Your task to perform on an android device: turn on the 12-hour format for clock Image 0: 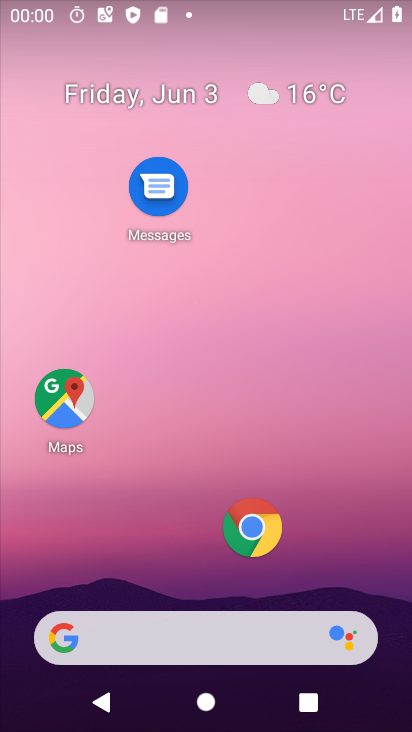
Step 0: press home button
Your task to perform on an android device: turn on the 12-hour format for clock Image 1: 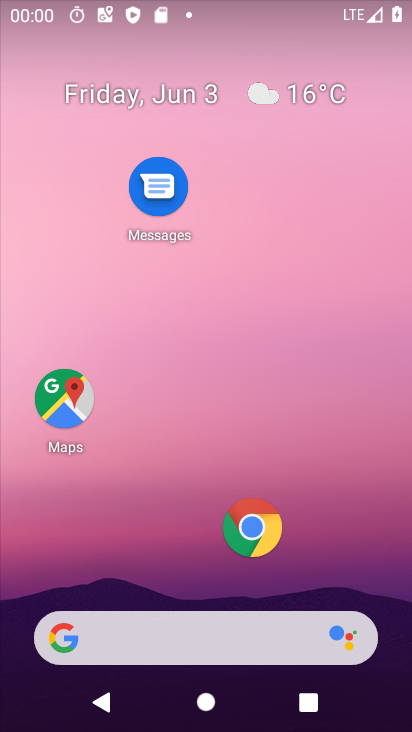
Step 1: drag from (210, 577) to (232, 75)
Your task to perform on an android device: turn on the 12-hour format for clock Image 2: 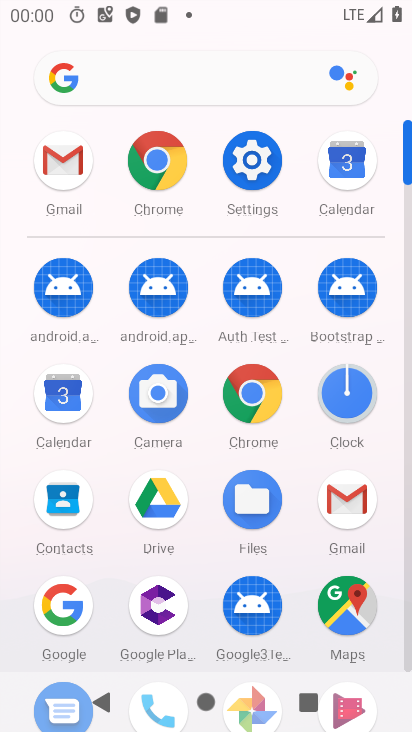
Step 2: click (342, 384)
Your task to perform on an android device: turn on the 12-hour format for clock Image 3: 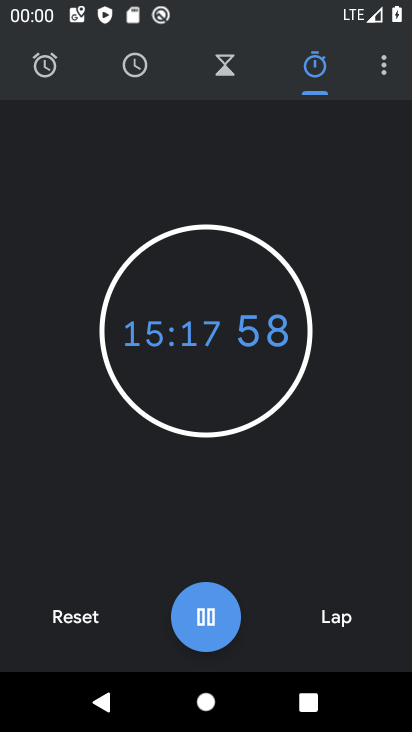
Step 3: click (384, 67)
Your task to perform on an android device: turn on the 12-hour format for clock Image 4: 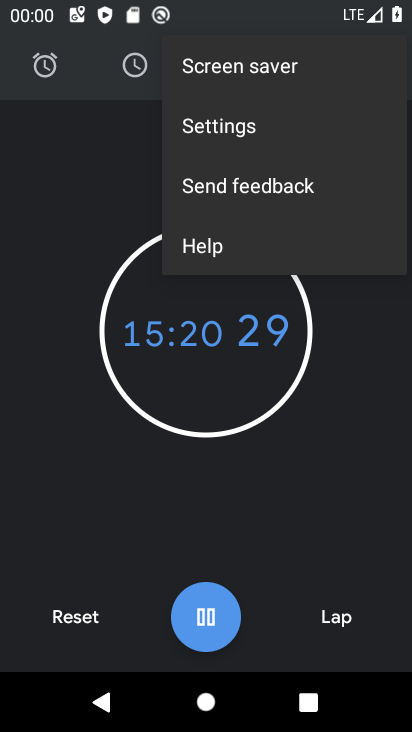
Step 4: click (276, 123)
Your task to perform on an android device: turn on the 12-hour format for clock Image 5: 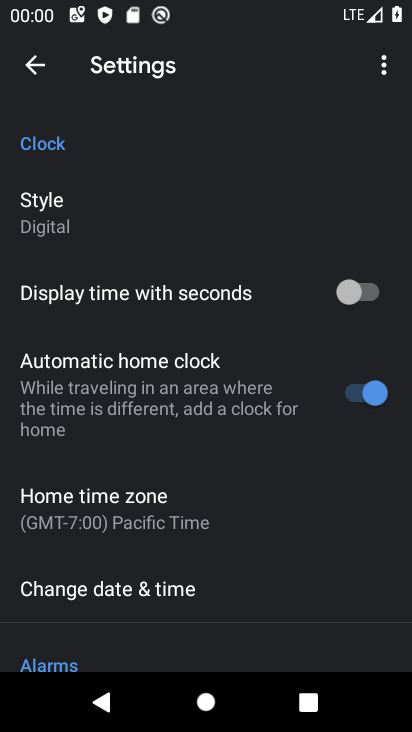
Step 5: click (224, 592)
Your task to perform on an android device: turn on the 12-hour format for clock Image 6: 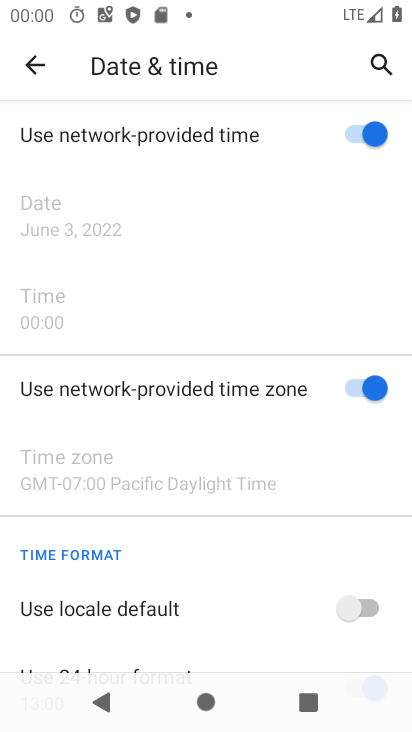
Step 6: drag from (269, 583) to (285, 398)
Your task to perform on an android device: turn on the 12-hour format for clock Image 7: 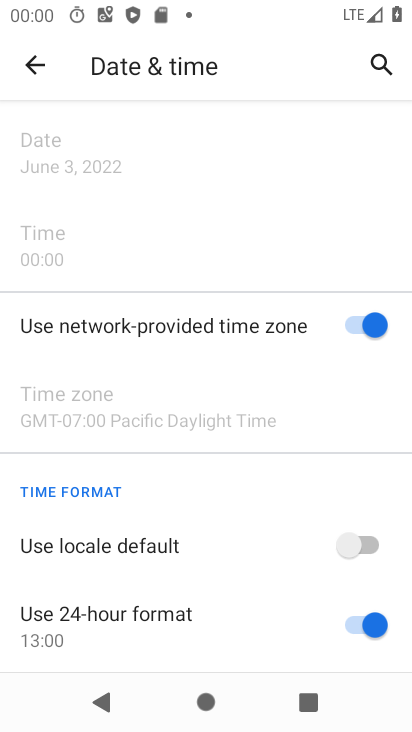
Step 7: click (362, 542)
Your task to perform on an android device: turn on the 12-hour format for clock Image 8: 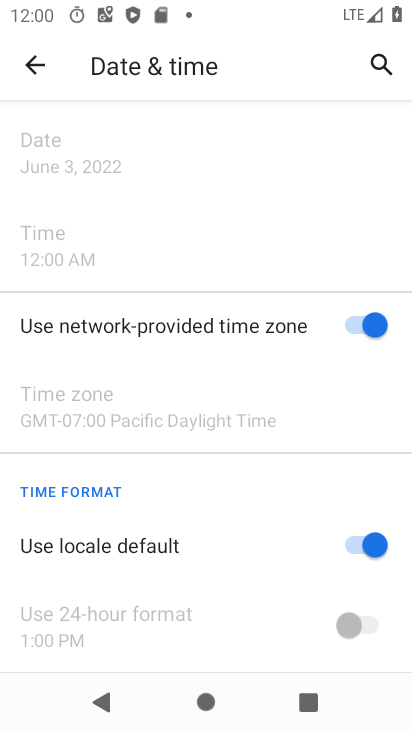
Step 8: task complete